Your task to perform on an android device: clear all cookies in the chrome app Image 0: 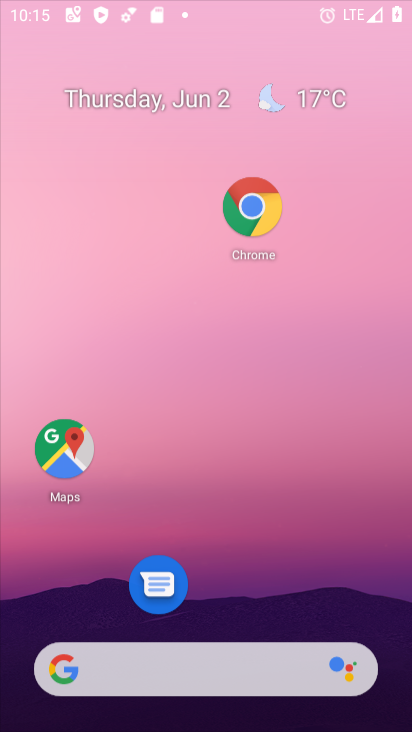
Step 0: press home button
Your task to perform on an android device: clear all cookies in the chrome app Image 1: 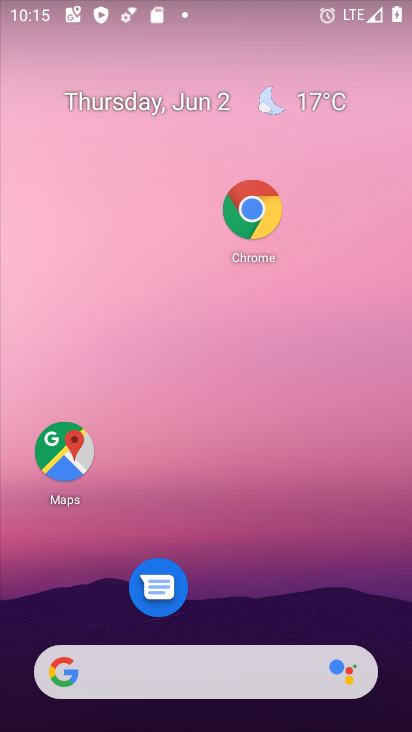
Step 1: click (249, 201)
Your task to perform on an android device: clear all cookies in the chrome app Image 2: 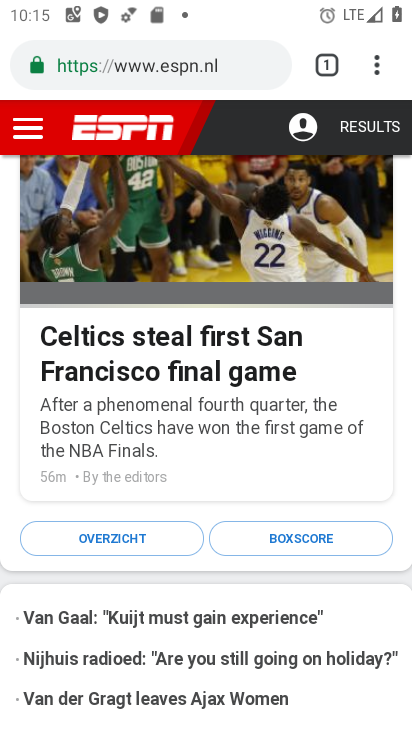
Step 2: click (374, 63)
Your task to perform on an android device: clear all cookies in the chrome app Image 3: 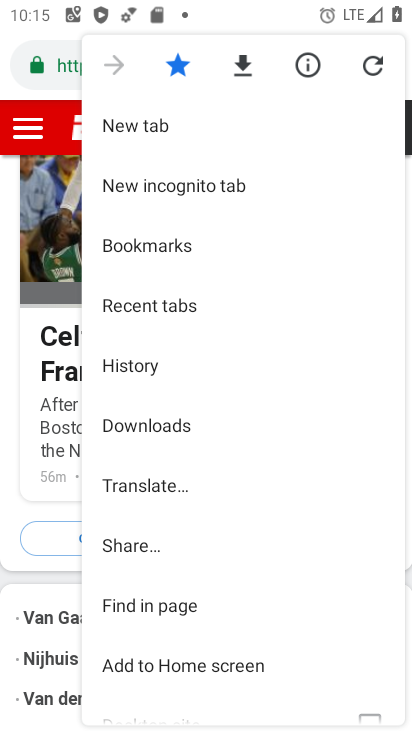
Step 3: click (172, 361)
Your task to perform on an android device: clear all cookies in the chrome app Image 4: 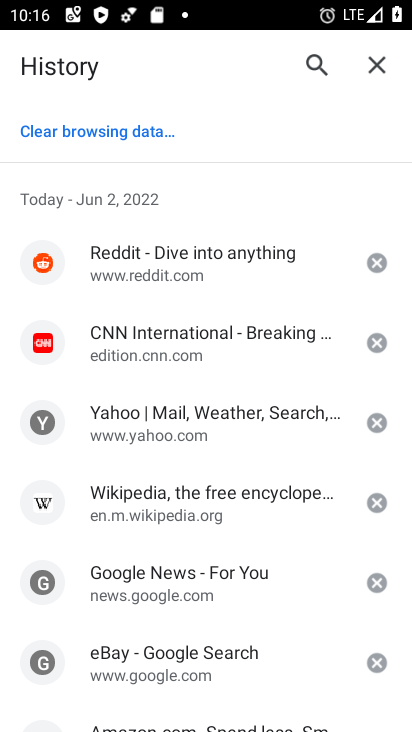
Step 4: click (112, 134)
Your task to perform on an android device: clear all cookies in the chrome app Image 5: 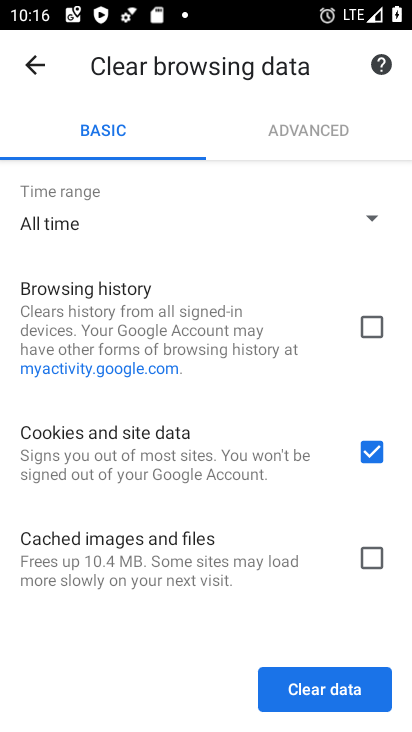
Step 5: click (368, 323)
Your task to perform on an android device: clear all cookies in the chrome app Image 6: 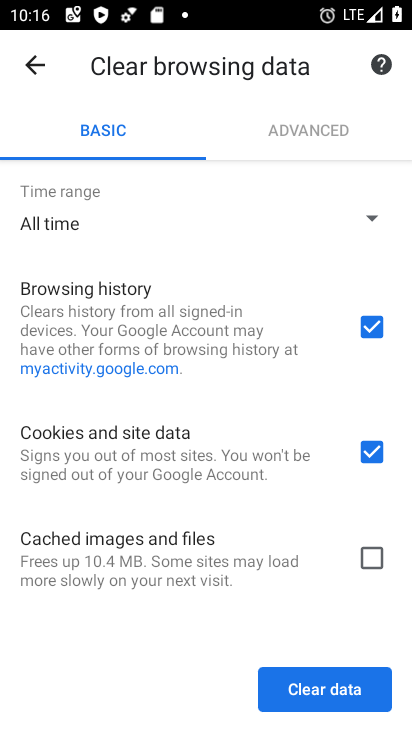
Step 6: click (378, 555)
Your task to perform on an android device: clear all cookies in the chrome app Image 7: 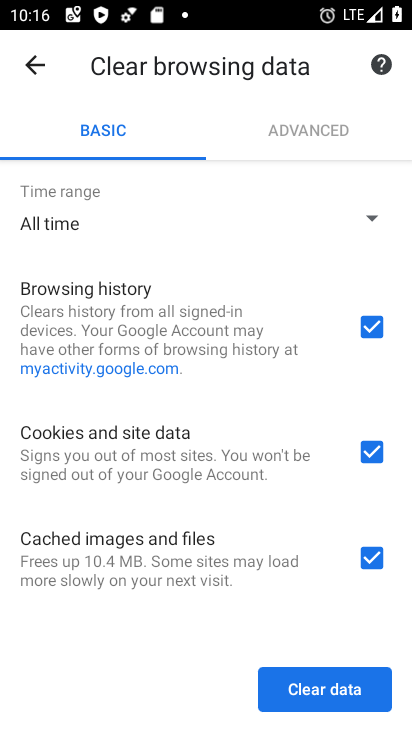
Step 7: click (324, 687)
Your task to perform on an android device: clear all cookies in the chrome app Image 8: 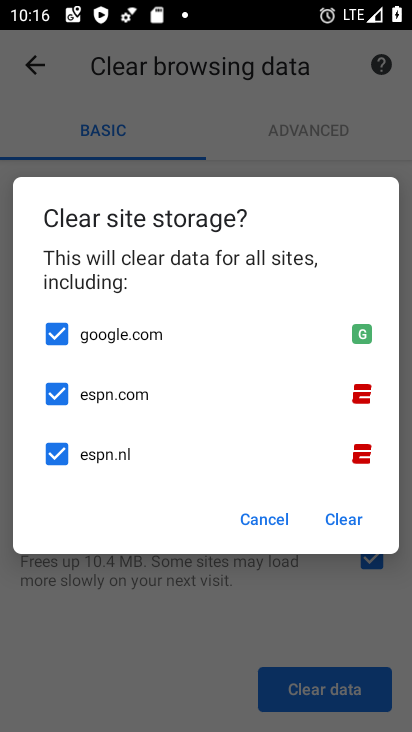
Step 8: click (343, 516)
Your task to perform on an android device: clear all cookies in the chrome app Image 9: 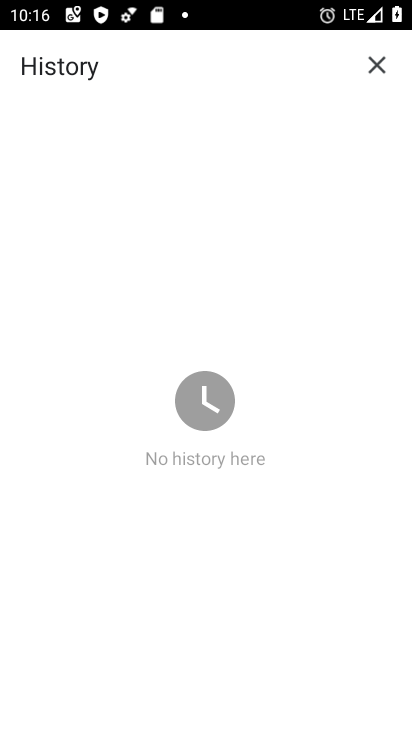
Step 9: task complete